Your task to perform on an android device: Open Wikipedia Image 0: 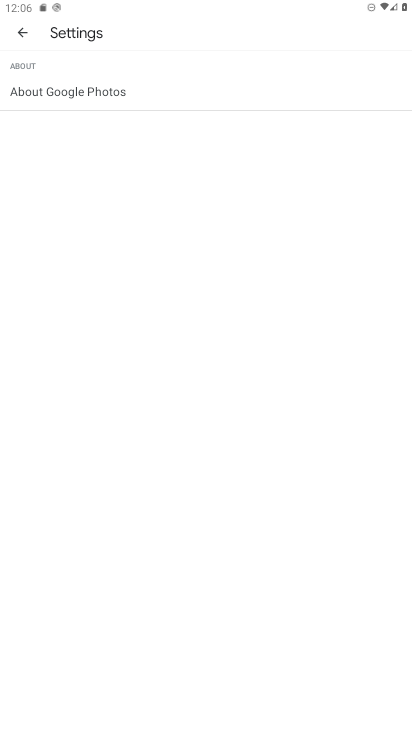
Step 0: press home button
Your task to perform on an android device: Open Wikipedia Image 1: 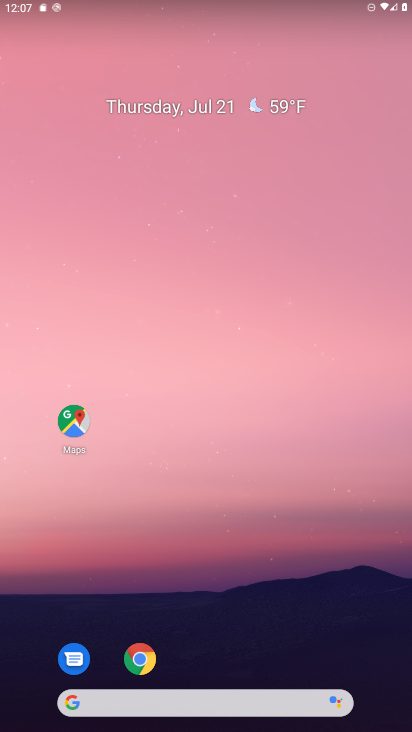
Step 1: click (135, 670)
Your task to perform on an android device: Open Wikipedia Image 2: 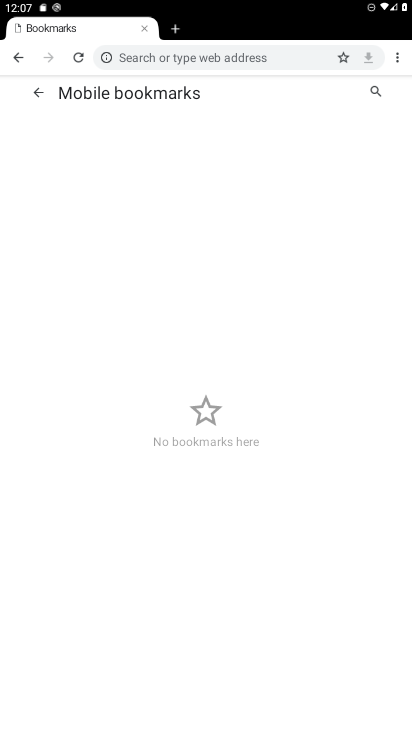
Step 2: click (17, 57)
Your task to perform on an android device: Open Wikipedia Image 3: 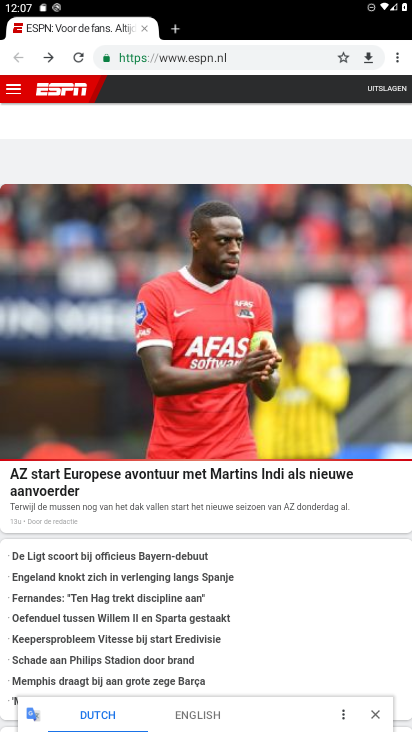
Step 3: click (175, 32)
Your task to perform on an android device: Open Wikipedia Image 4: 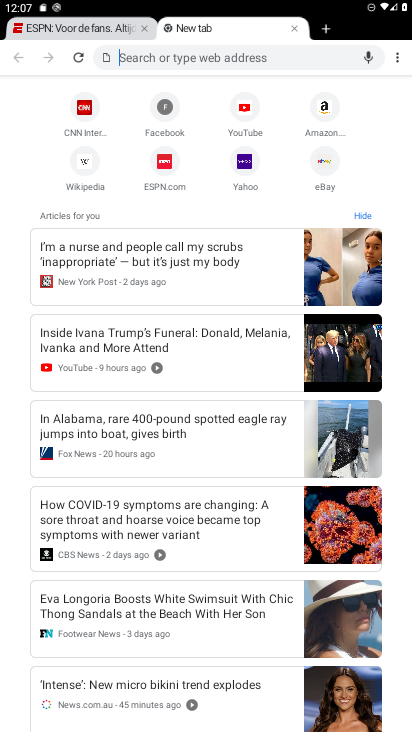
Step 4: click (87, 162)
Your task to perform on an android device: Open Wikipedia Image 5: 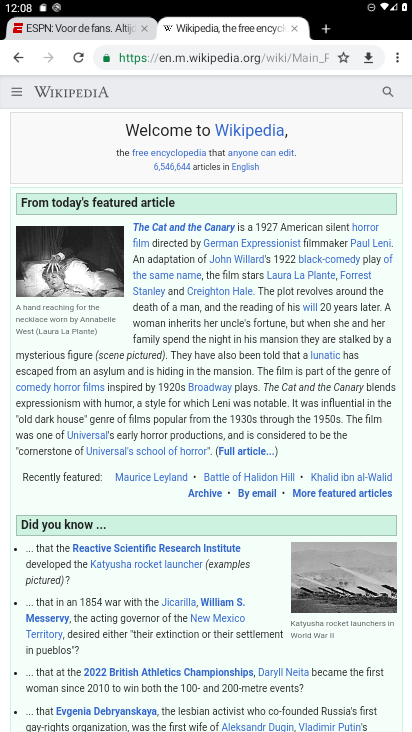
Step 5: task complete